Your task to perform on an android device: open app "Google Keep" (install if not already installed) Image 0: 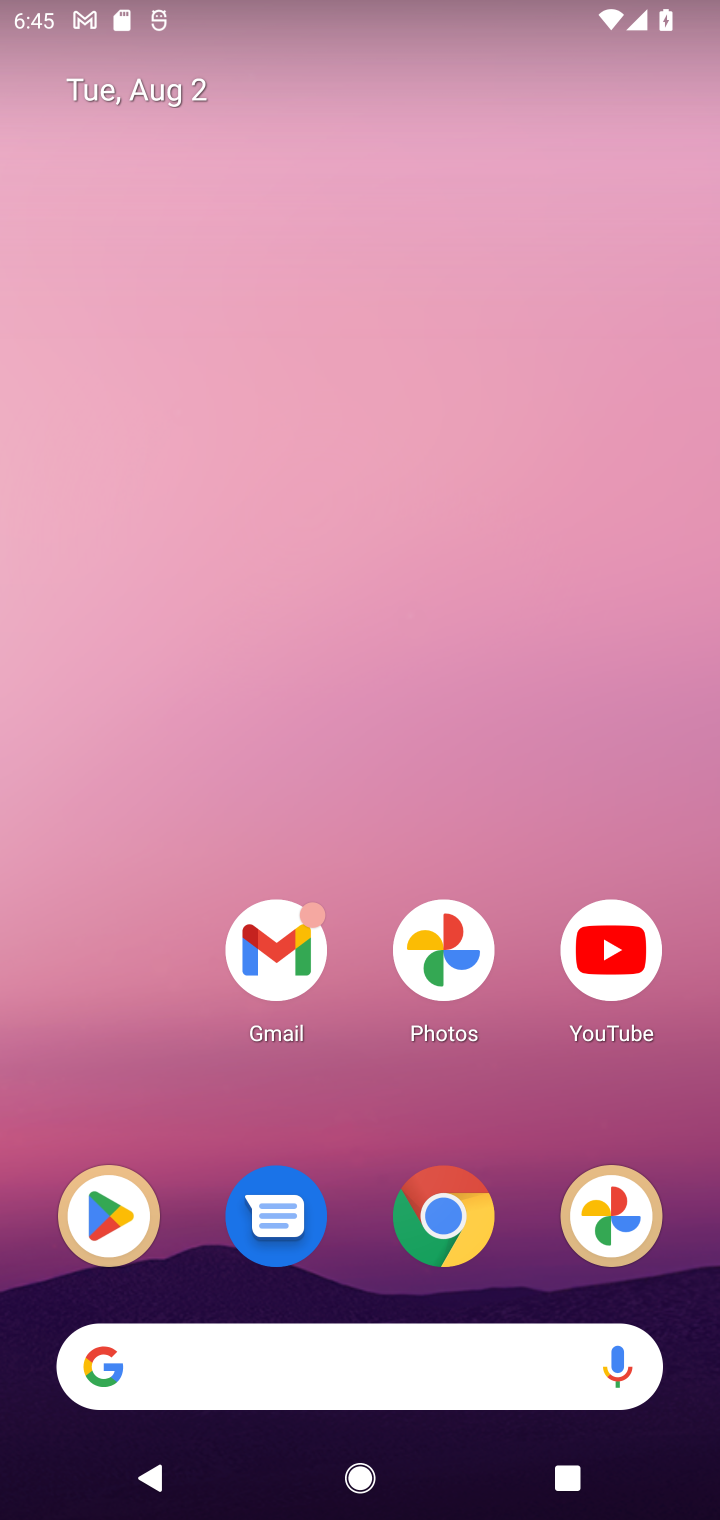
Step 0: click (98, 1214)
Your task to perform on an android device: open app "Google Keep" (install if not already installed) Image 1: 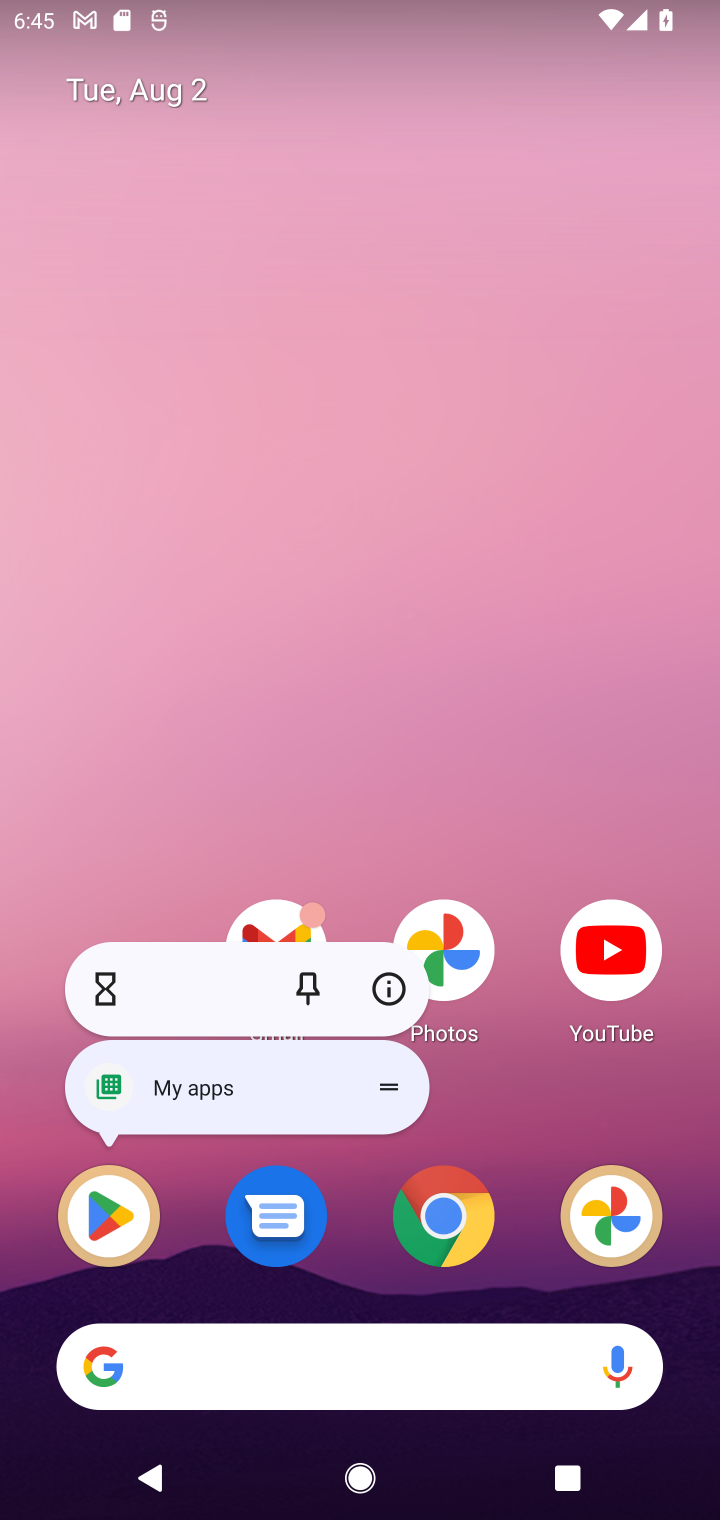
Step 1: click (118, 1223)
Your task to perform on an android device: open app "Google Keep" (install if not already installed) Image 2: 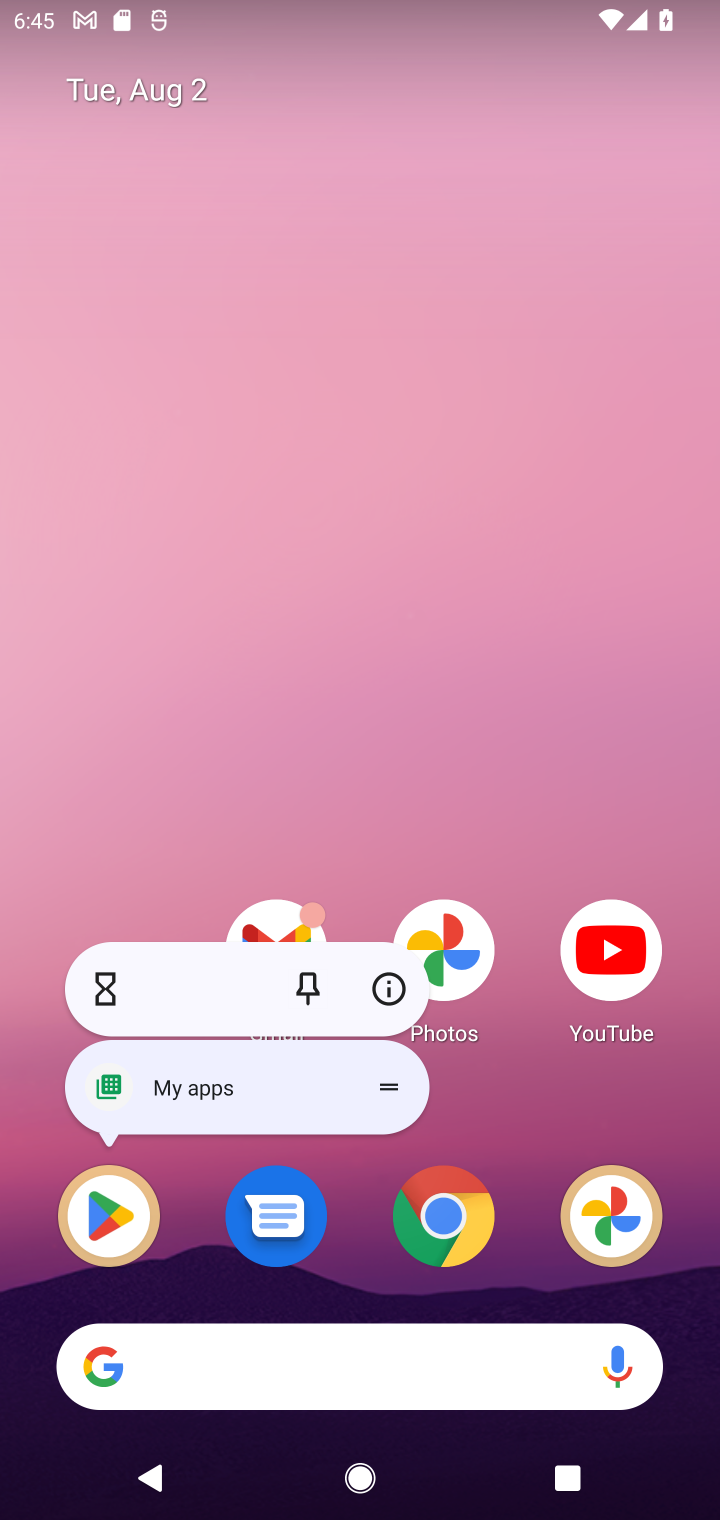
Step 2: click (120, 1225)
Your task to perform on an android device: open app "Google Keep" (install if not already installed) Image 3: 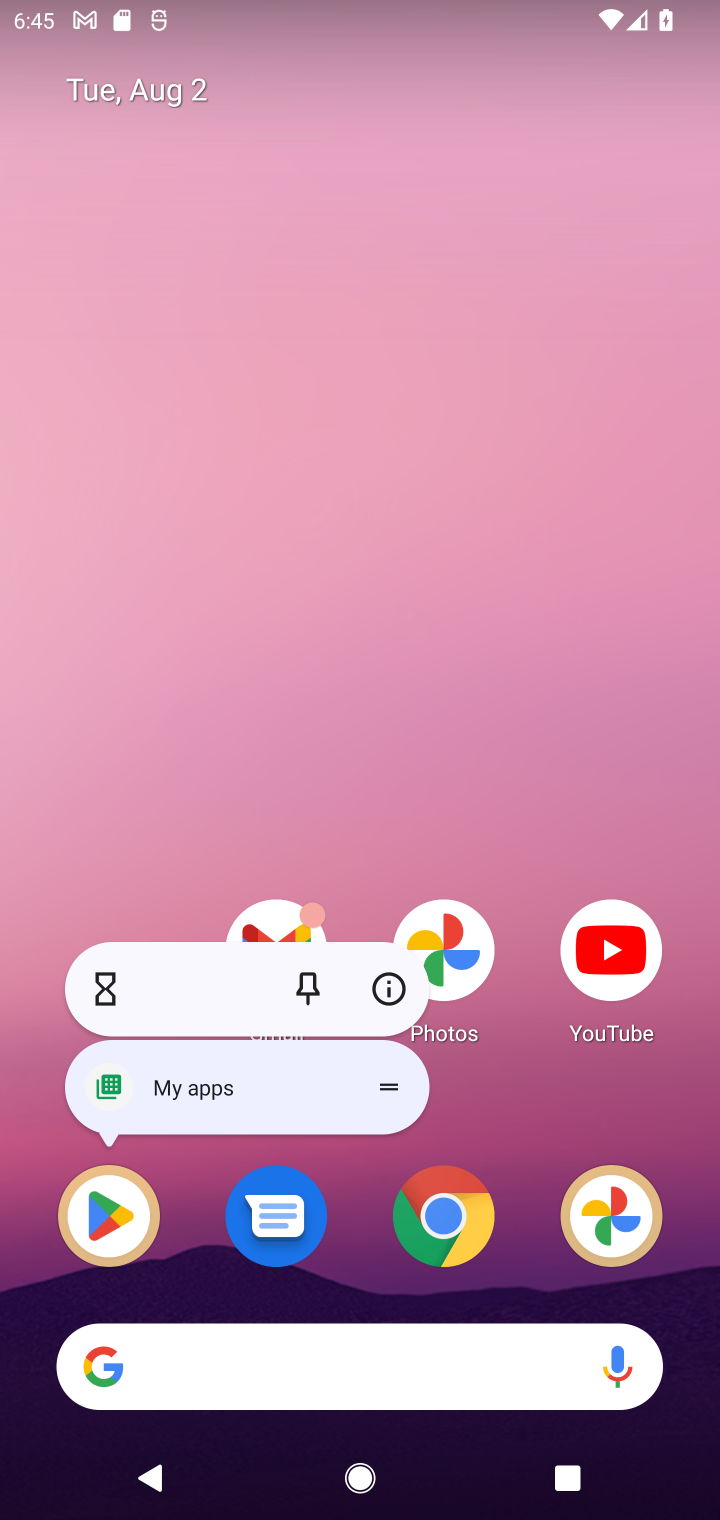
Step 3: click (120, 1225)
Your task to perform on an android device: open app "Google Keep" (install if not already installed) Image 4: 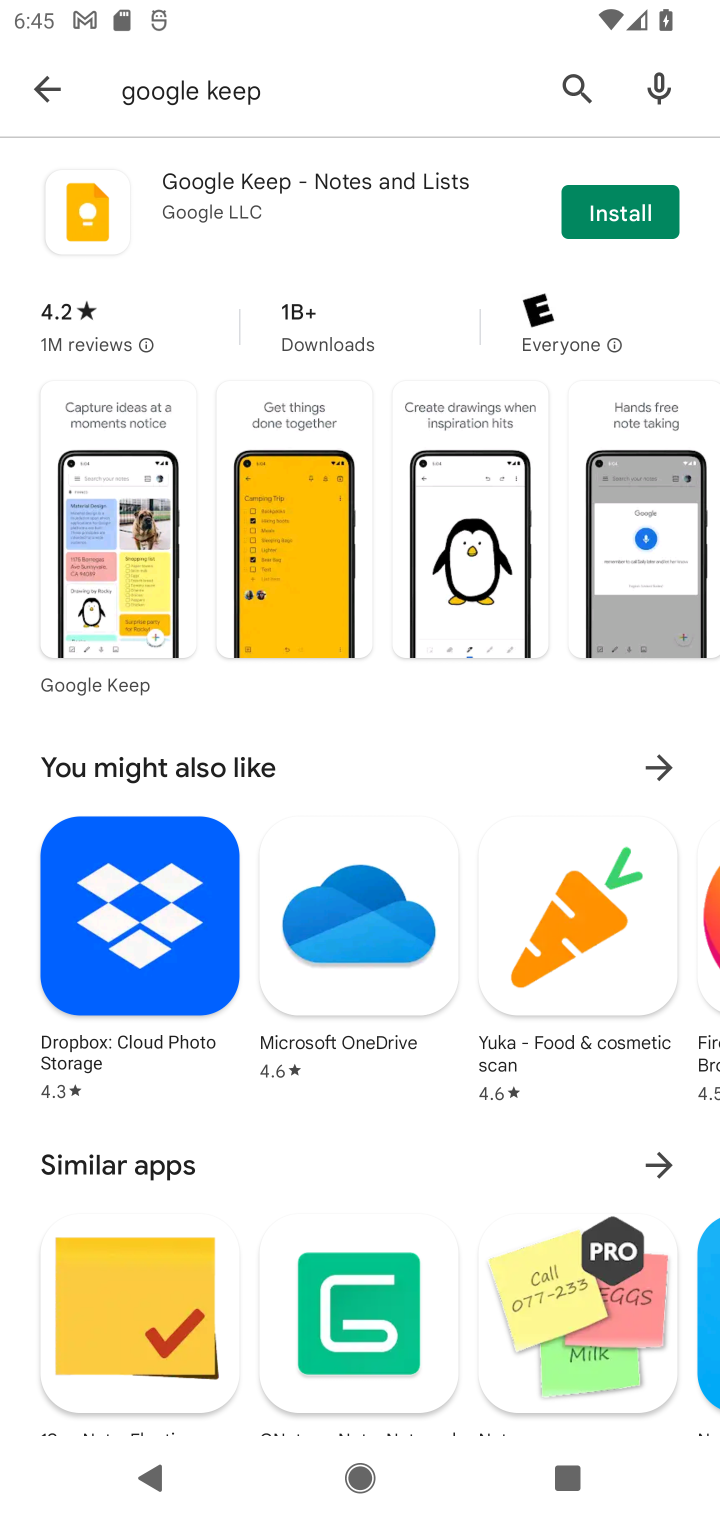
Step 4: click (563, 78)
Your task to perform on an android device: open app "Google Keep" (install if not already installed) Image 5: 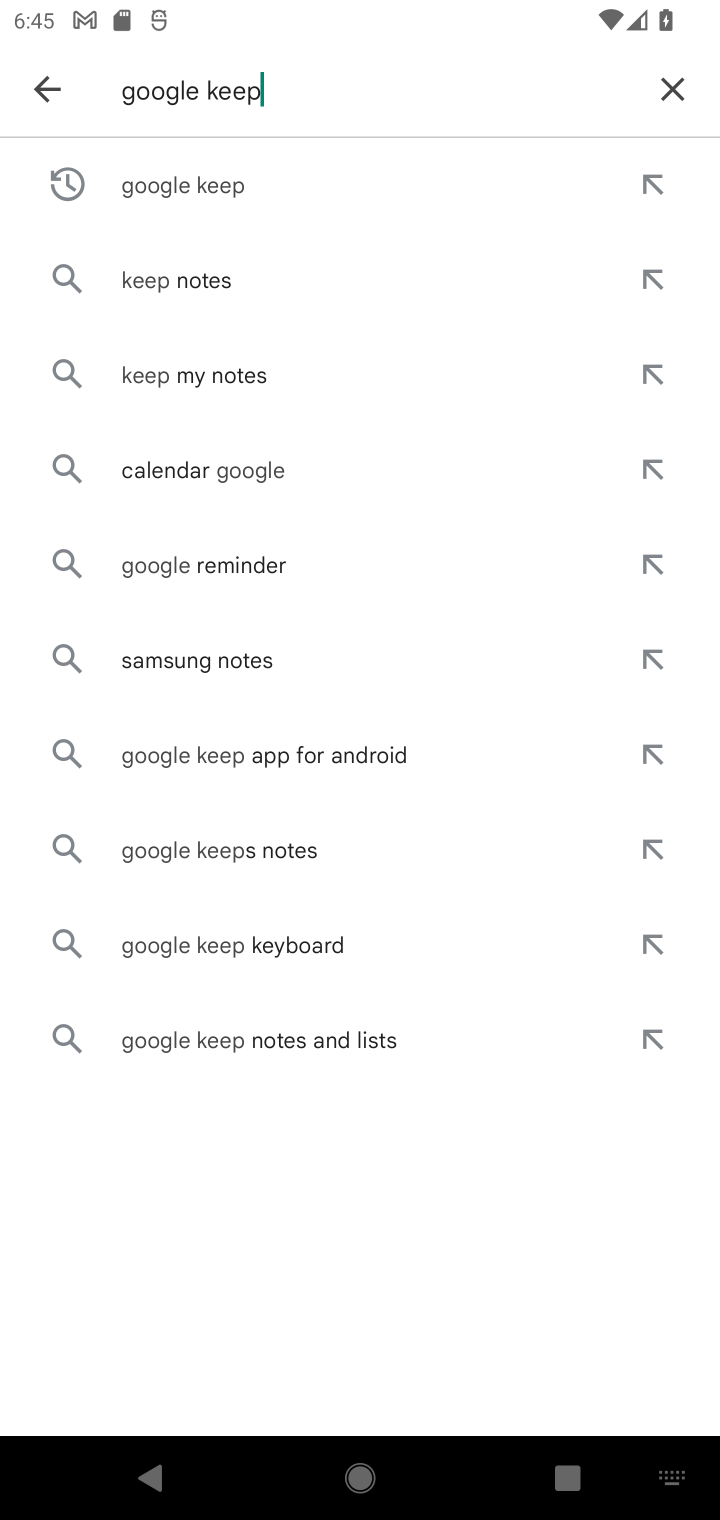
Step 5: click (672, 85)
Your task to perform on an android device: open app "Google Keep" (install if not already installed) Image 6: 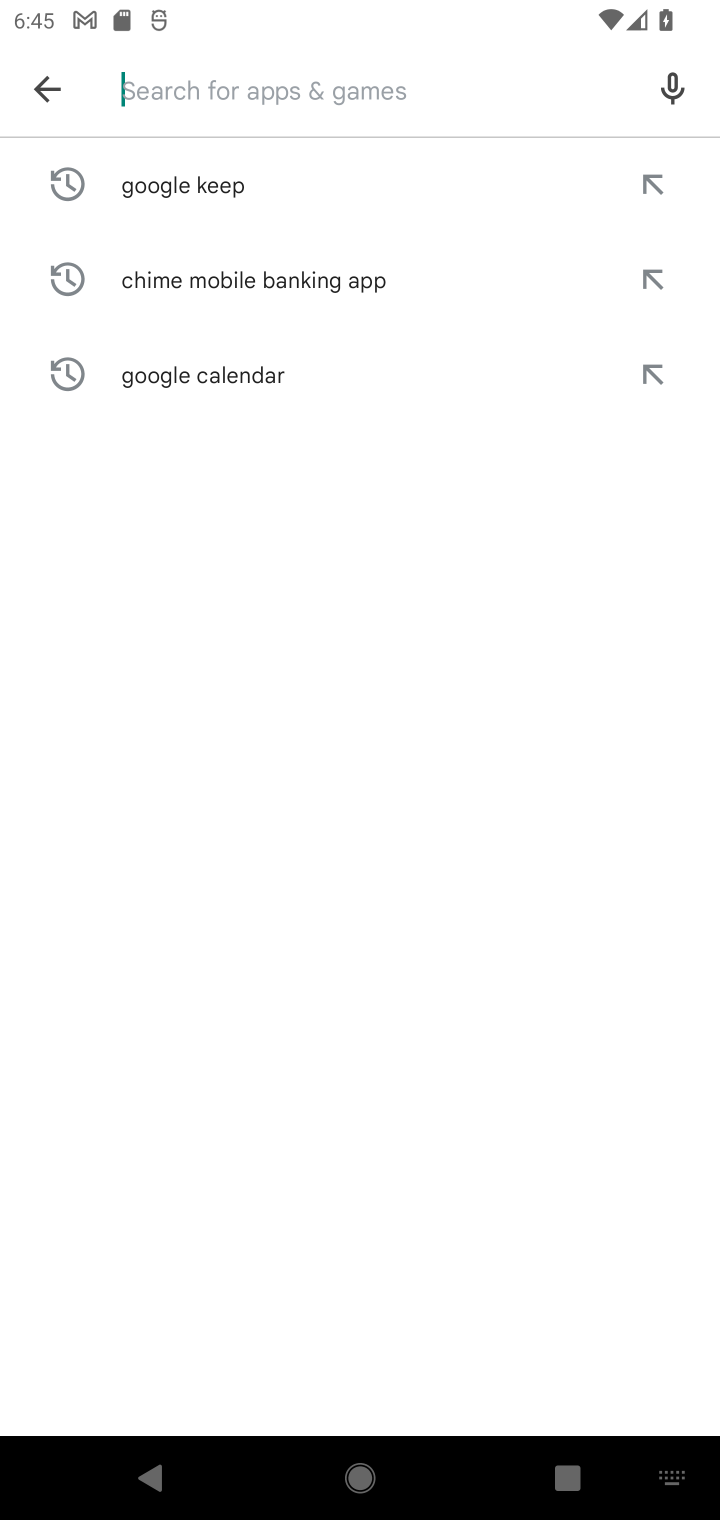
Step 6: type "Google Keep"
Your task to perform on an android device: open app "Google Keep" (install if not already installed) Image 7: 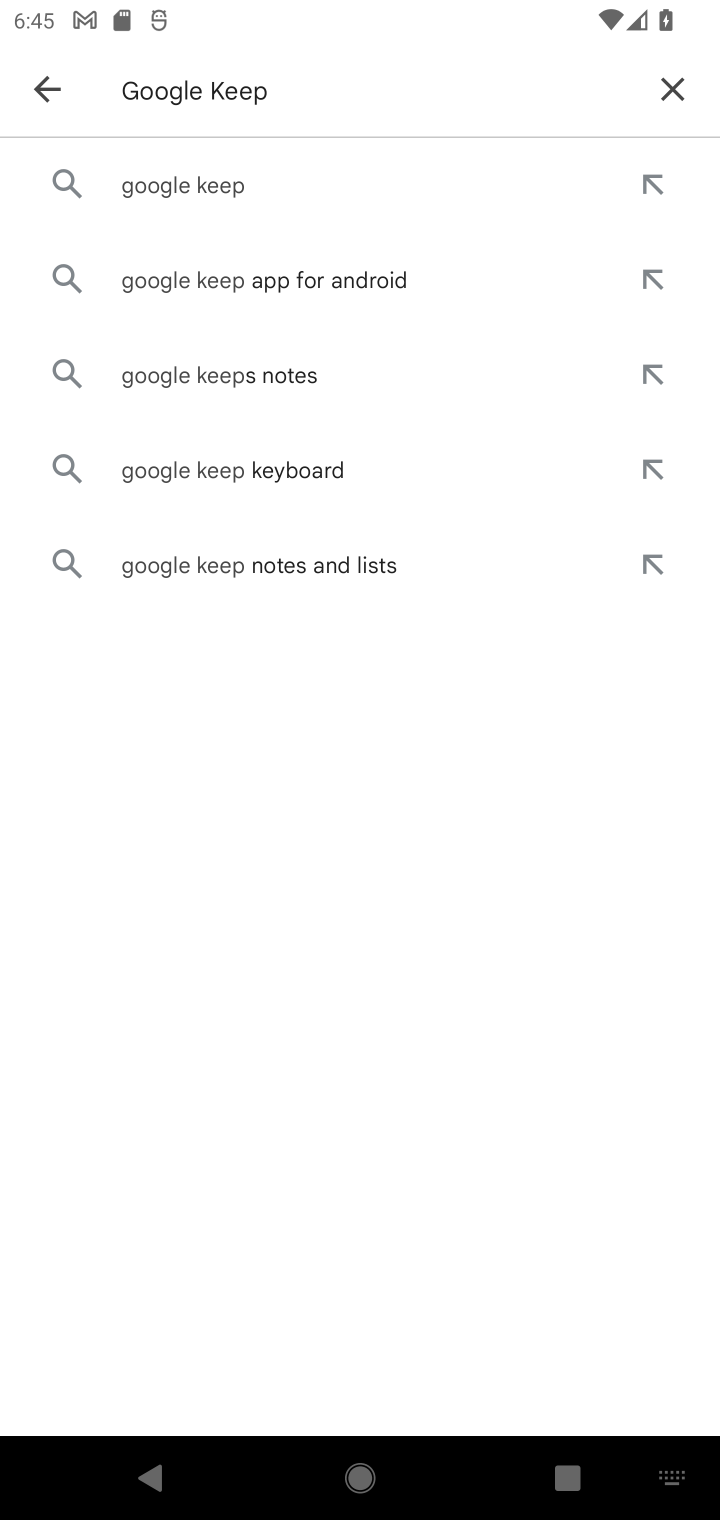
Step 7: click (213, 195)
Your task to perform on an android device: open app "Google Keep" (install if not already installed) Image 8: 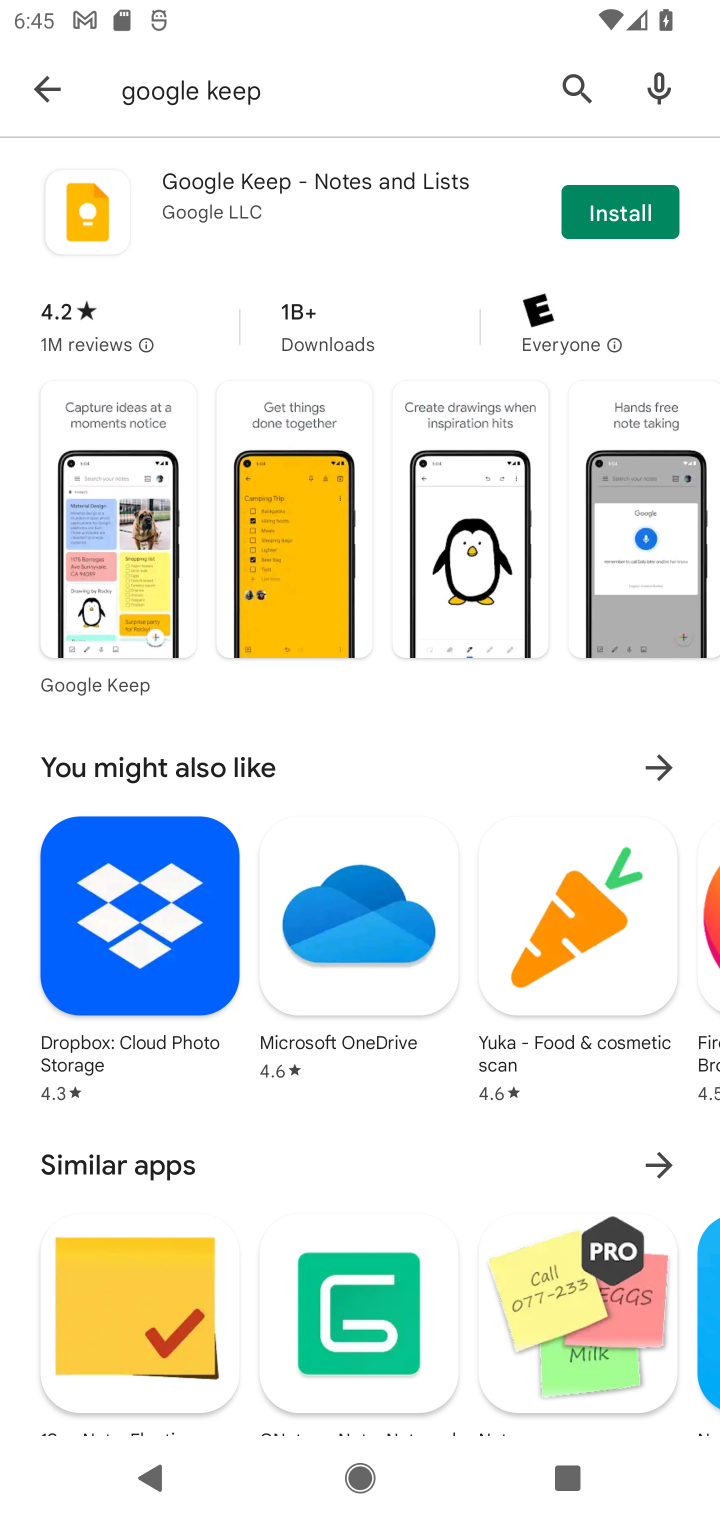
Step 8: click (608, 206)
Your task to perform on an android device: open app "Google Keep" (install if not already installed) Image 9: 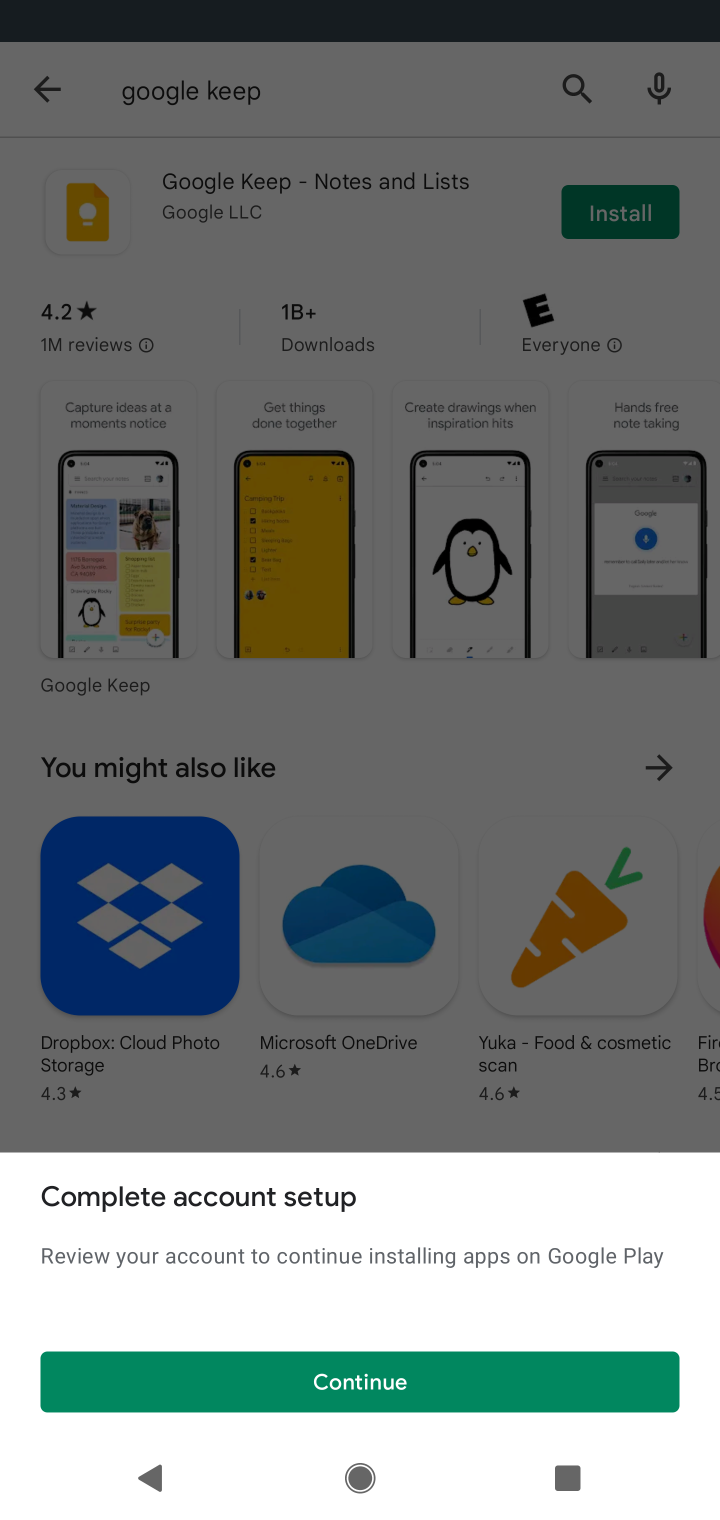
Step 9: click (392, 1374)
Your task to perform on an android device: open app "Google Keep" (install if not already installed) Image 10: 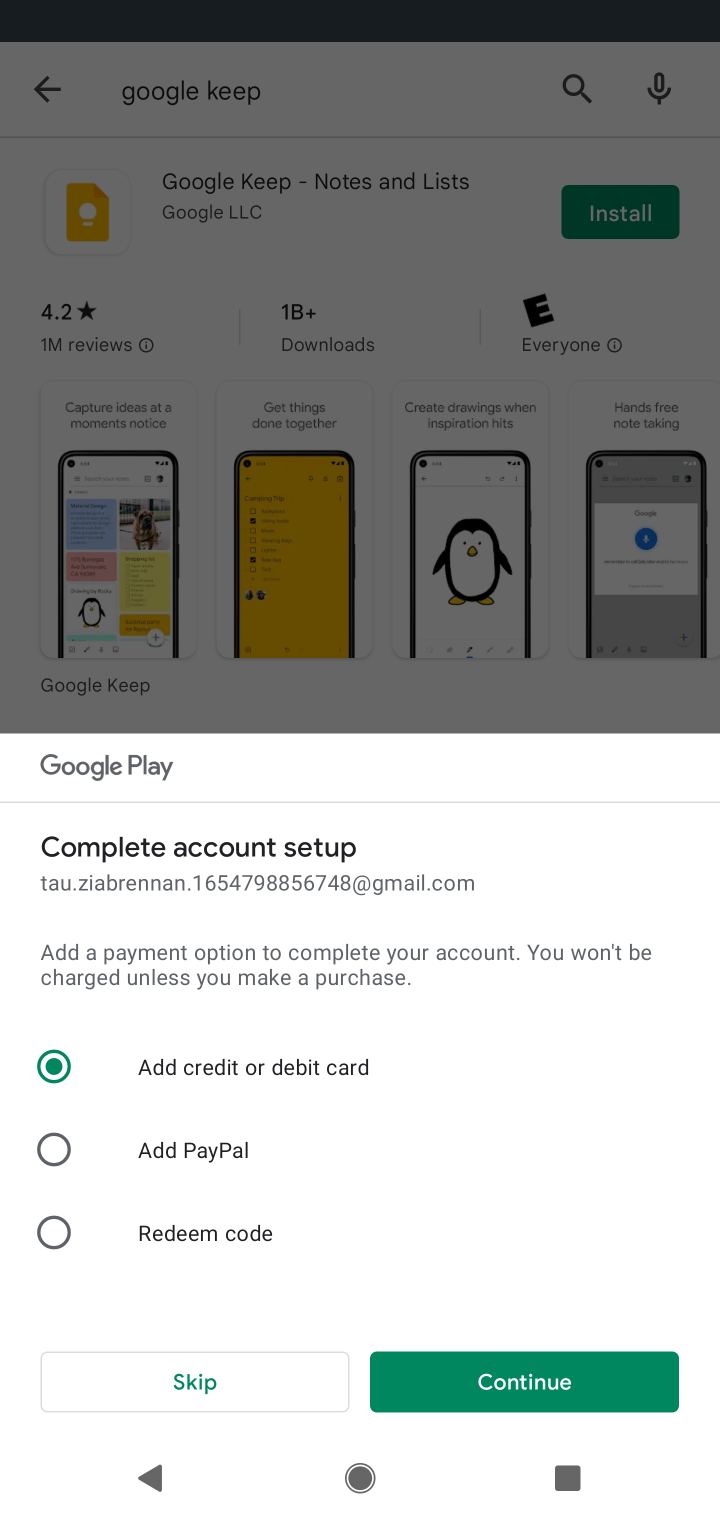
Step 10: click (217, 1386)
Your task to perform on an android device: open app "Google Keep" (install if not already installed) Image 11: 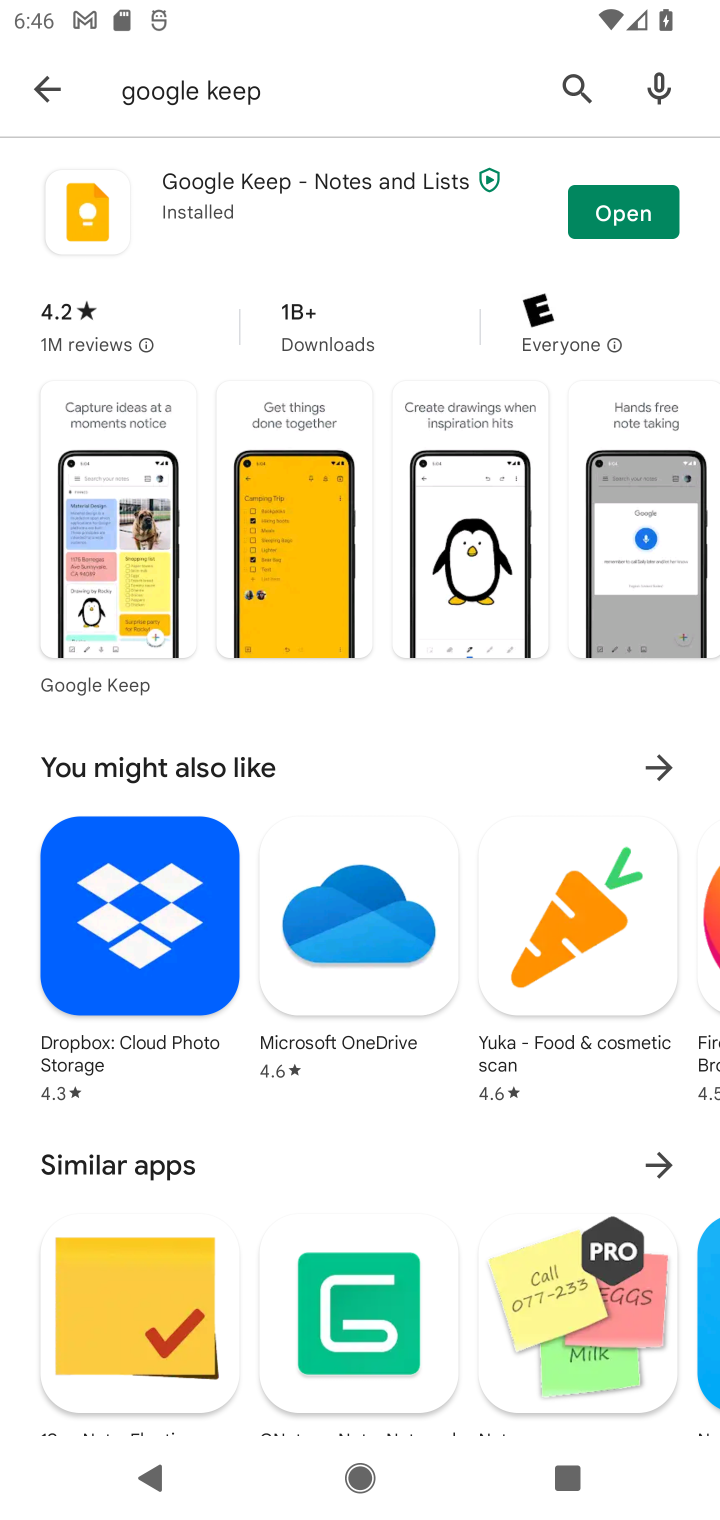
Step 11: click (602, 215)
Your task to perform on an android device: open app "Google Keep" (install if not already installed) Image 12: 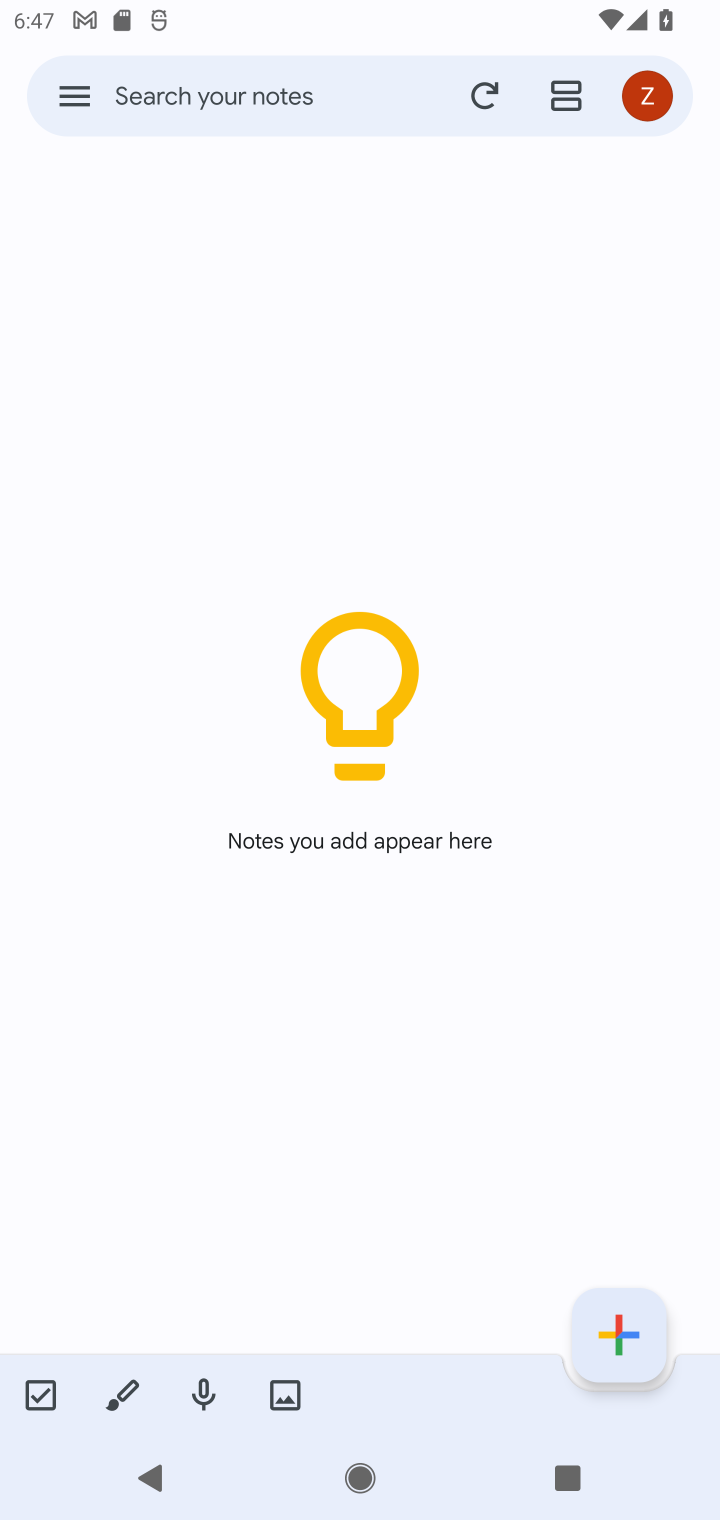
Step 12: task complete